Your task to perform on an android device: Go to privacy settings Image 0: 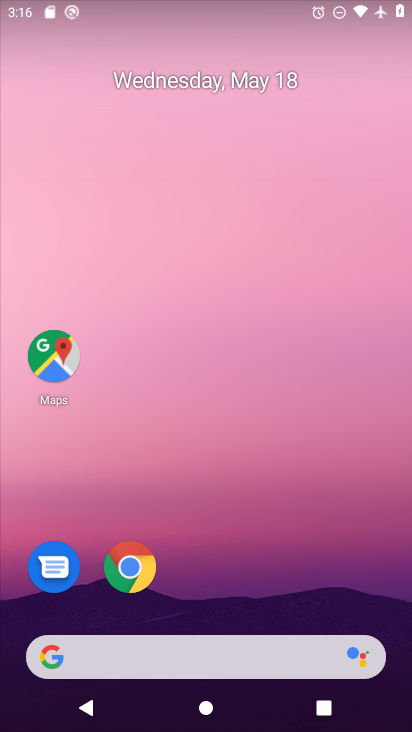
Step 0: drag from (276, 594) to (265, 220)
Your task to perform on an android device: Go to privacy settings Image 1: 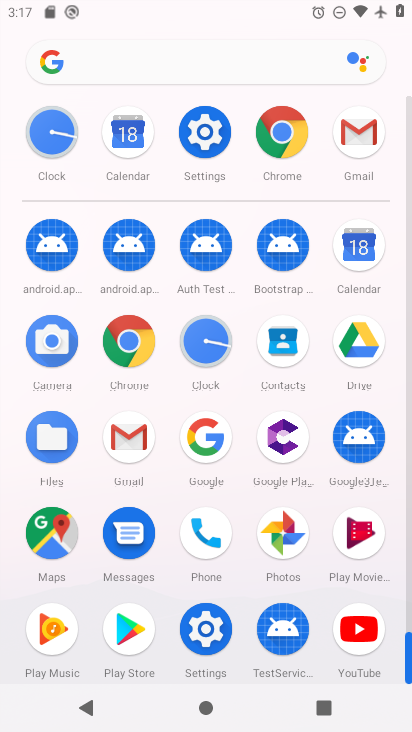
Step 1: click (214, 118)
Your task to perform on an android device: Go to privacy settings Image 2: 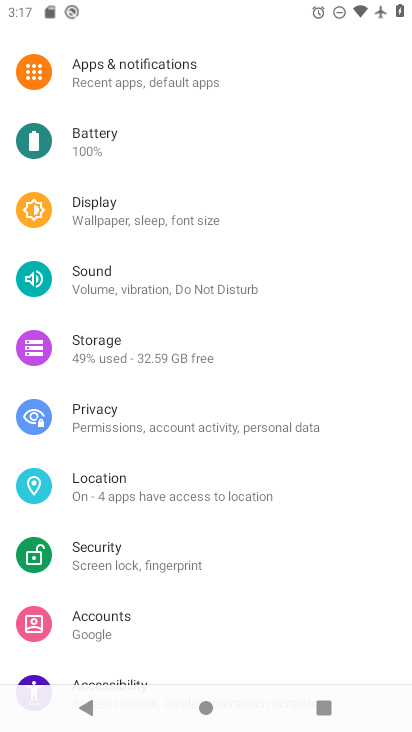
Step 2: drag from (139, 593) to (163, 325)
Your task to perform on an android device: Go to privacy settings Image 3: 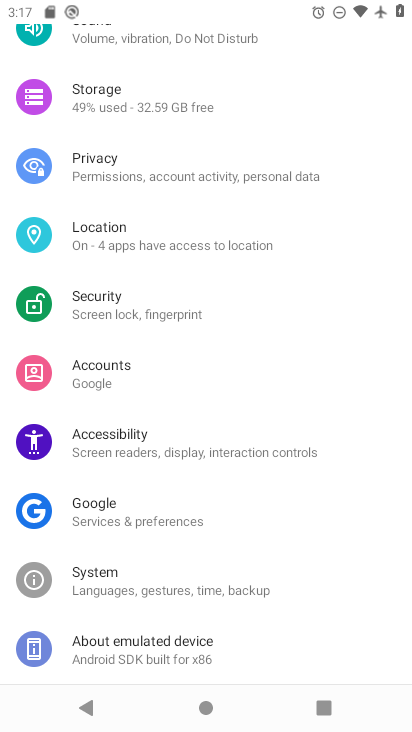
Step 3: click (116, 160)
Your task to perform on an android device: Go to privacy settings Image 4: 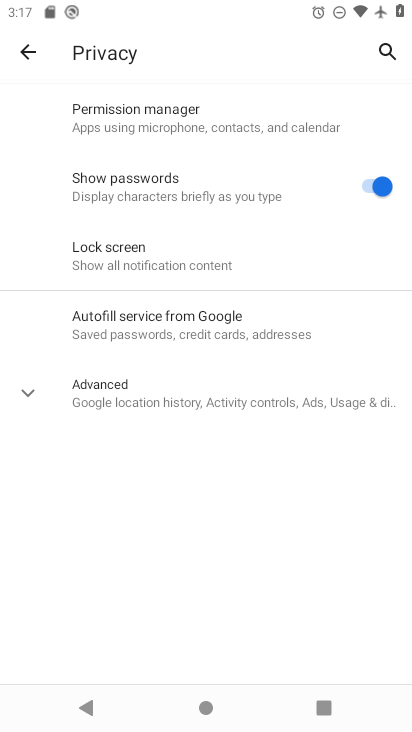
Step 4: task complete